Your task to perform on an android device: change timer sound Image 0: 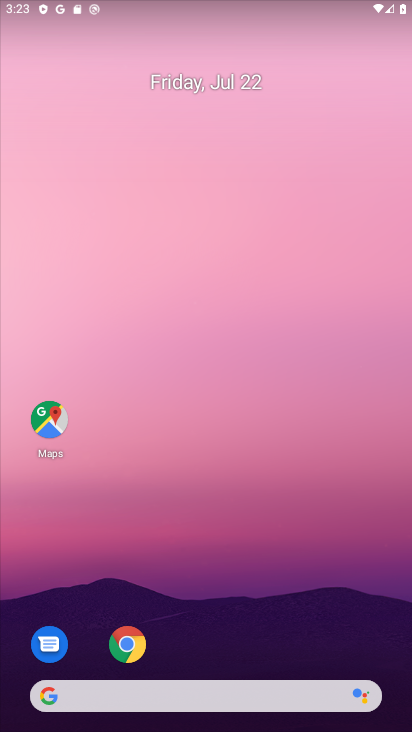
Step 0: drag from (216, 657) to (211, 285)
Your task to perform on an android device: change timer sound Image 1: 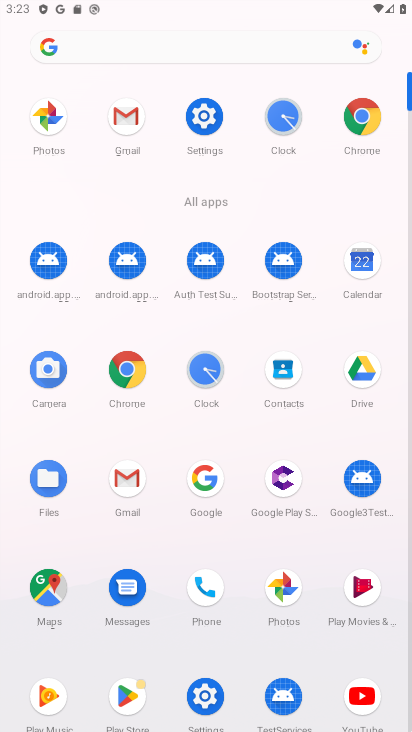
Step 1: click (208, 371)
Your task to perform on an android device: change timer sound Image 2: 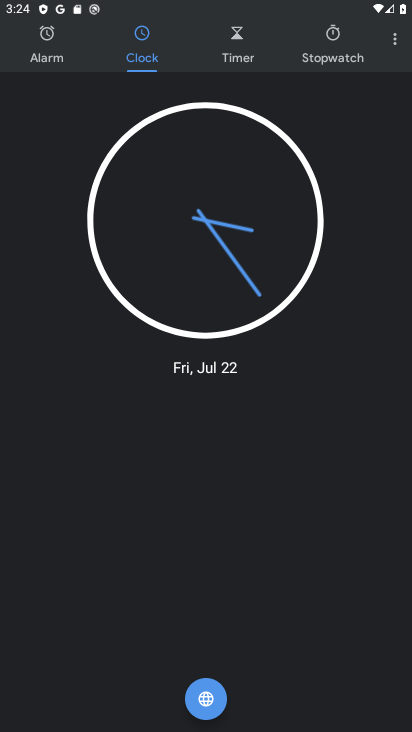
Step 2: click (397, 43)
Your task to perform on an android device: change timer sound Image 3: 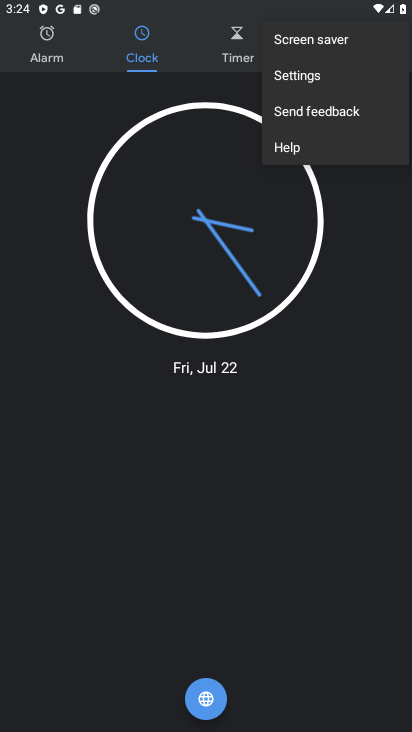
Step 3: click (289, 70)
Your task to perform on an android device: change timer sound Image 4: 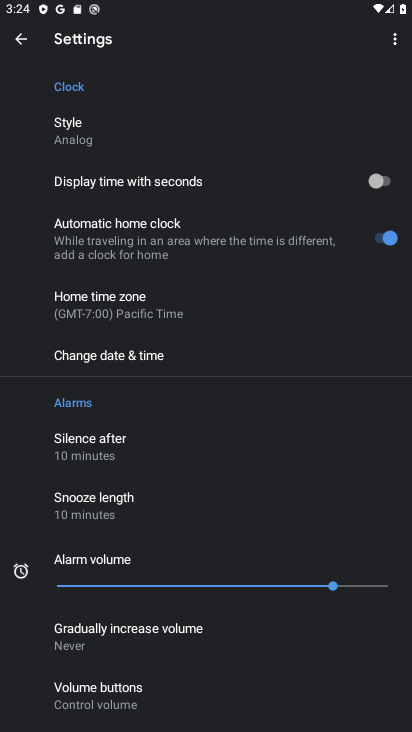
Step 4: drag from (123, 556) to (123, 331)
Your task to perform on an android device: change timer sound Image 5: 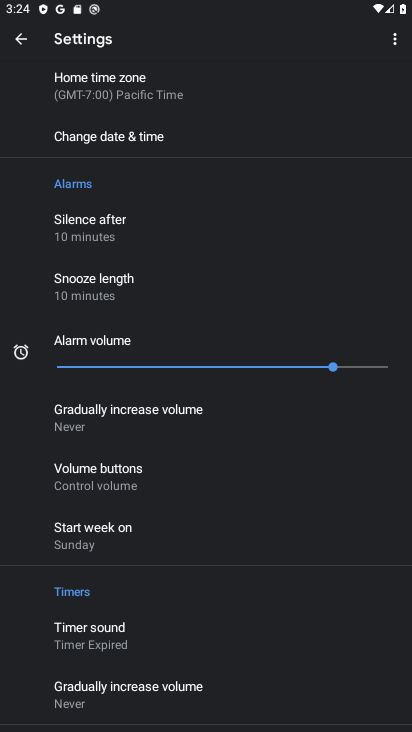
Step 5: click (81, 638)
Your task to perform on an android device: change timer sound Image 6: 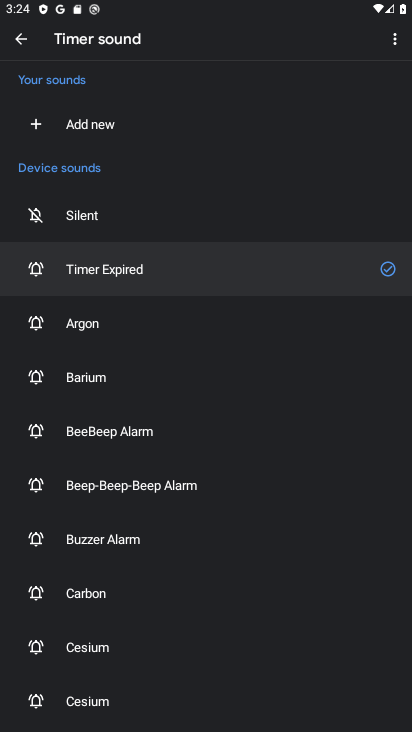
Step 6: click (97, 487)
Your task to perform on an android device: change timer sound Image 7: 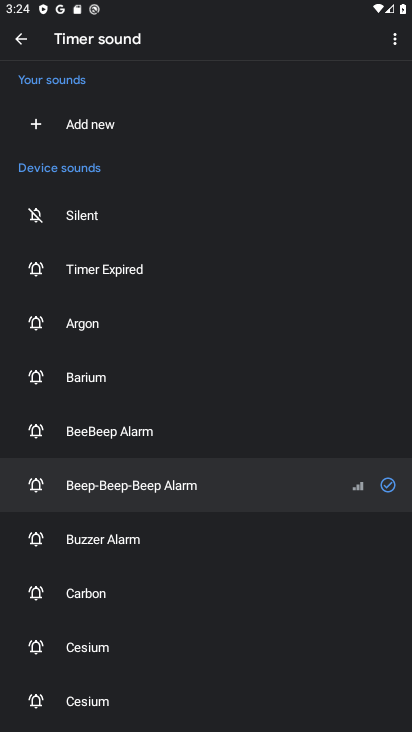
Step 7: task complete